Your task to perform on an android device: open app "Facebook Messenger" Image 0: 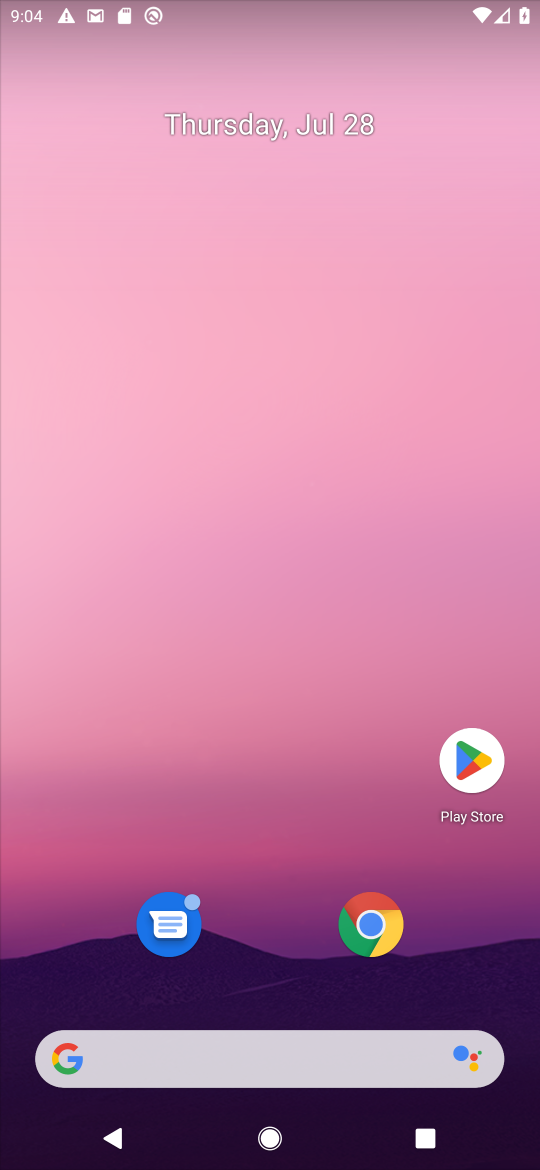
Step 0: press home button
Your task to perform on an android device: open app "Facebook Messenger" Image 1: 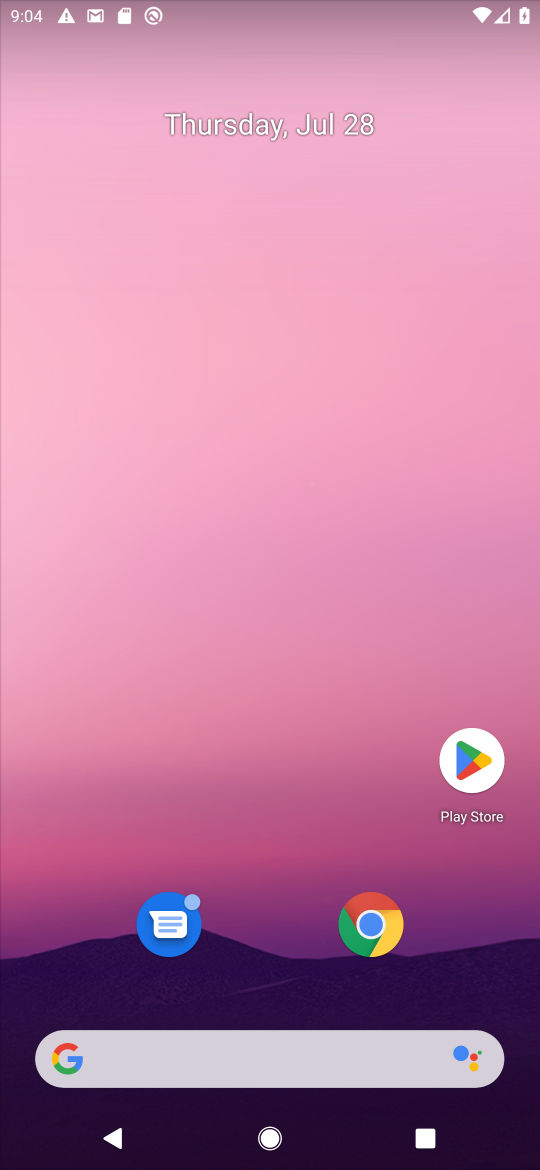
Step 1: click (471, 758)
Your task to perform on an android device: open app "Facebook Messenger" Image 2: 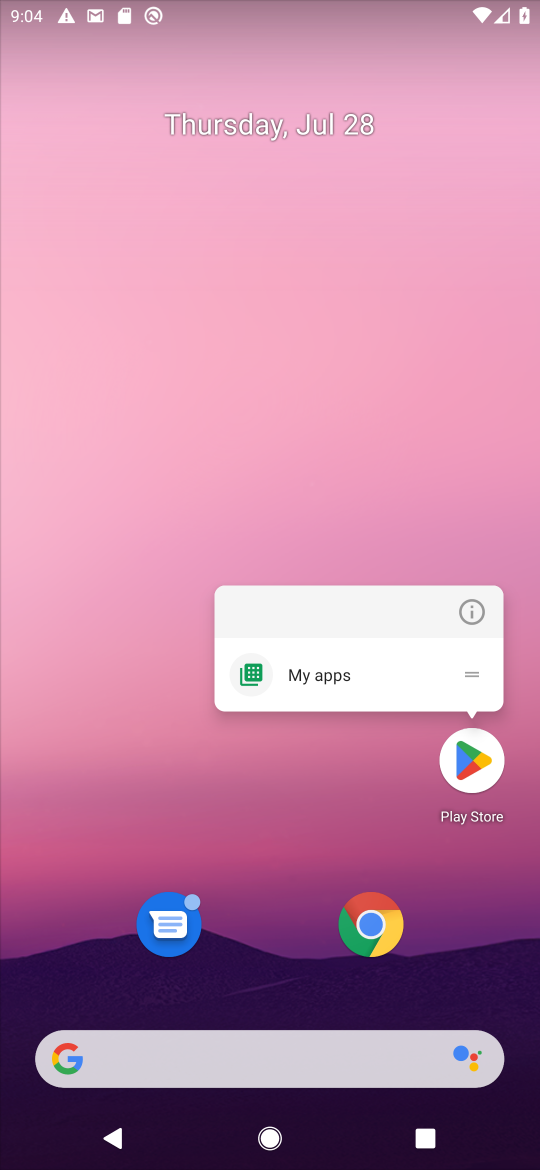
Step 2: click (471, 770)
Your task to perform on an android device: open app "Facebook Messenger" Image 3: 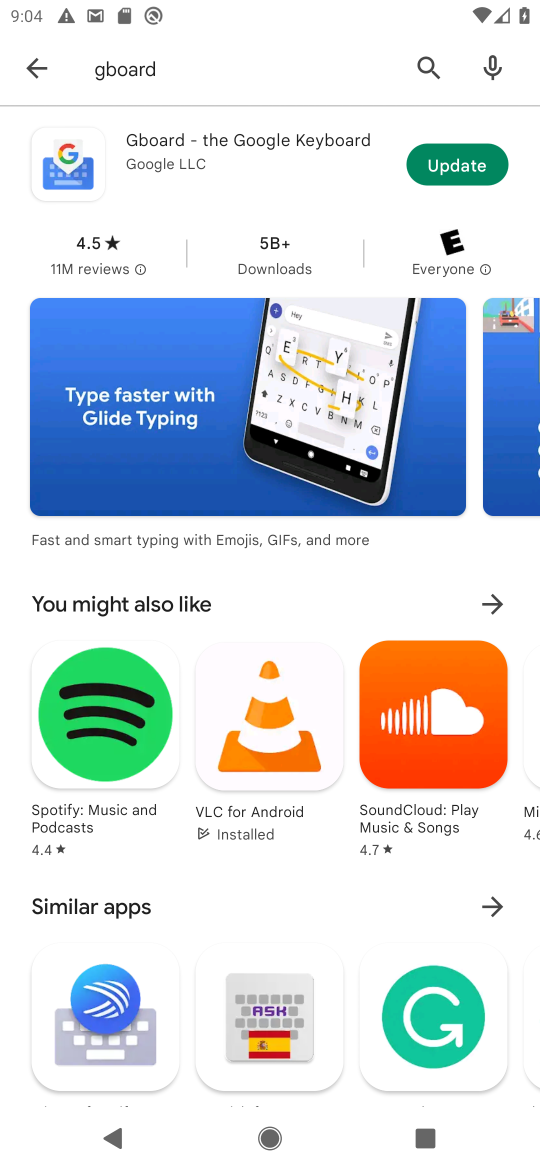
Step 3: click (427, 53)
Your task to perform on an android device: open app "Facebook Messenger" Image 4: 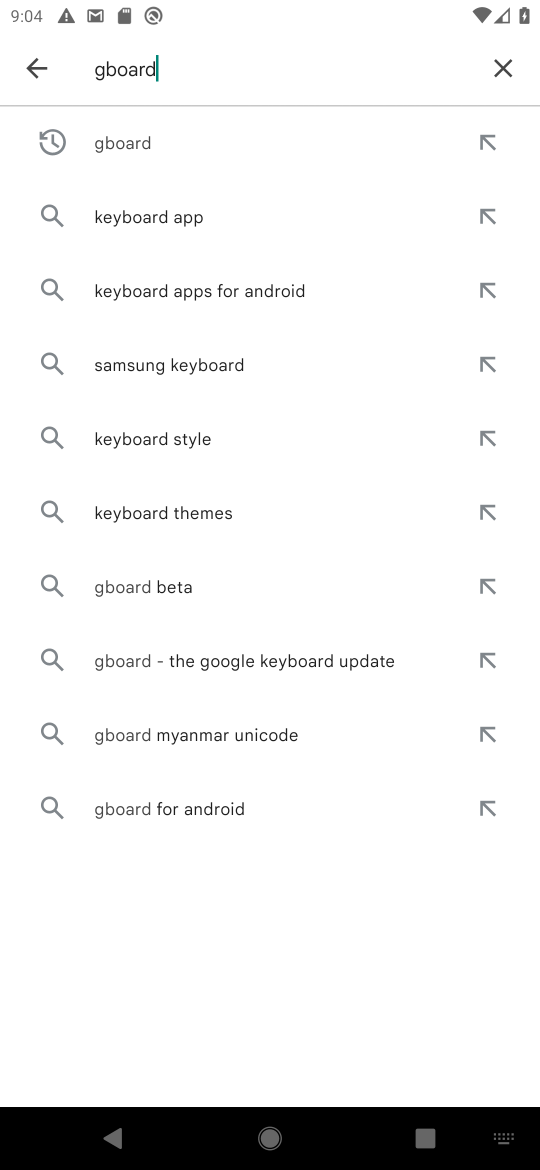
Step 4: click (498, 57)
Your task to perform on an android device: open app "Facebook Messenger" Image 5: 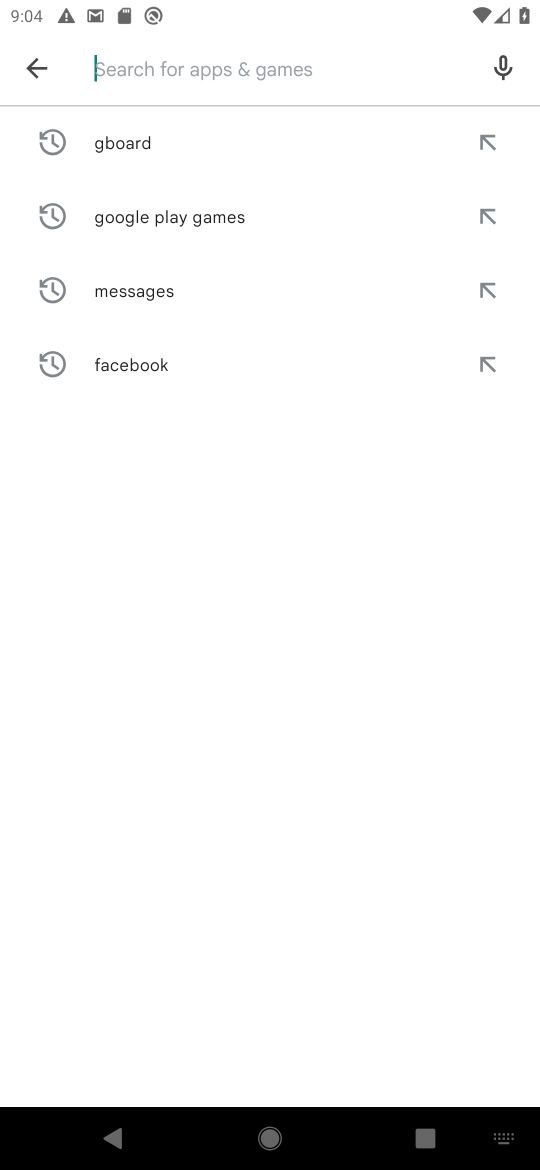
Step 5: type "Facebook Messenger"
Your task to perform on an android device: open app "Facebook Messenger" Image 6: 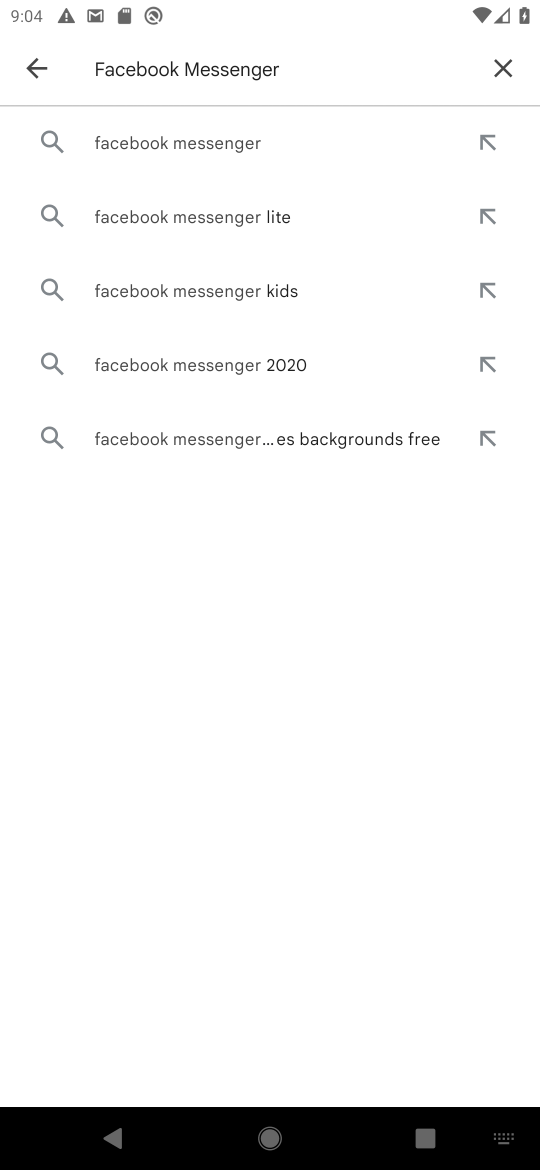
Step 6: click (184, 142)
Your task to perform on an android device: open app "Facebook Messenger" Image 7: 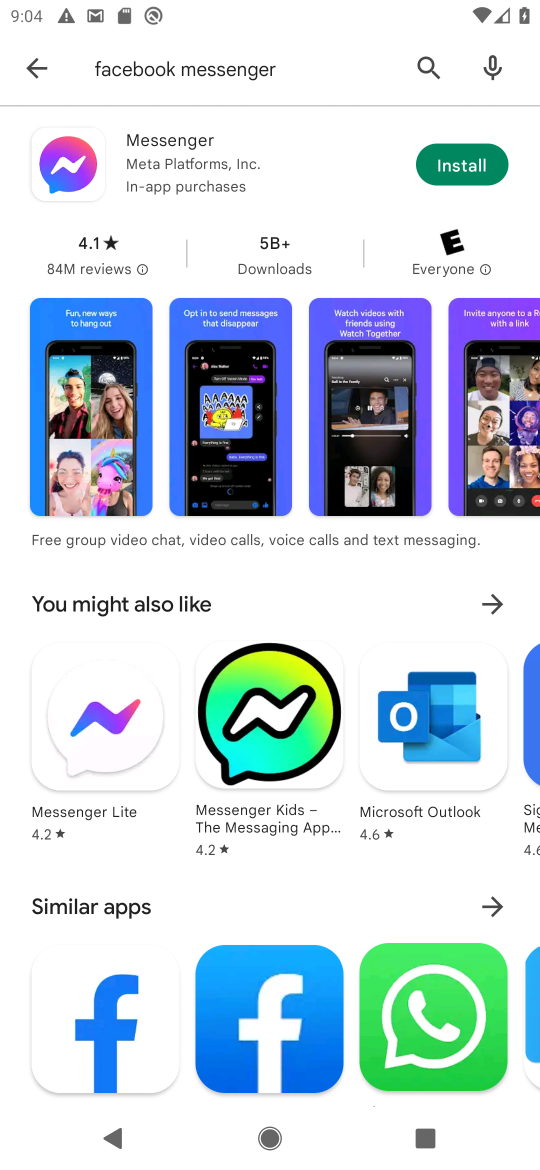
Step 7: task complete